Your task to perform on an android device: Open Google Chrome Image 0: 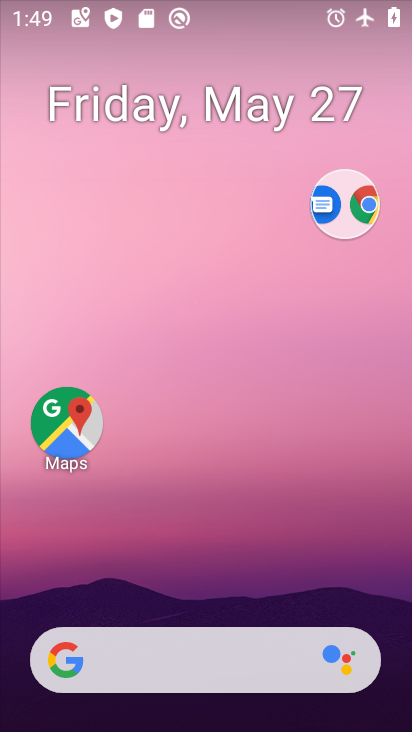
Step 0: drag from (270, 533) to (305, 159)
Your task to perform on an android device: Open Google Chrome Image 1: 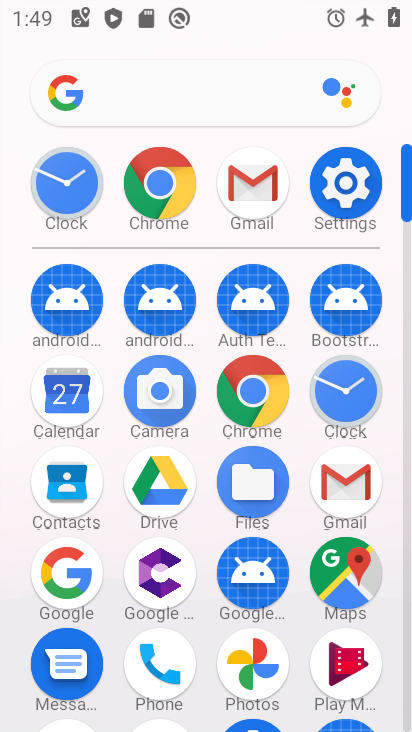
Step 1: drag from (238, 539) to (271, 408)
Your task to perform on an android device: Open Google Chrome Image 2: 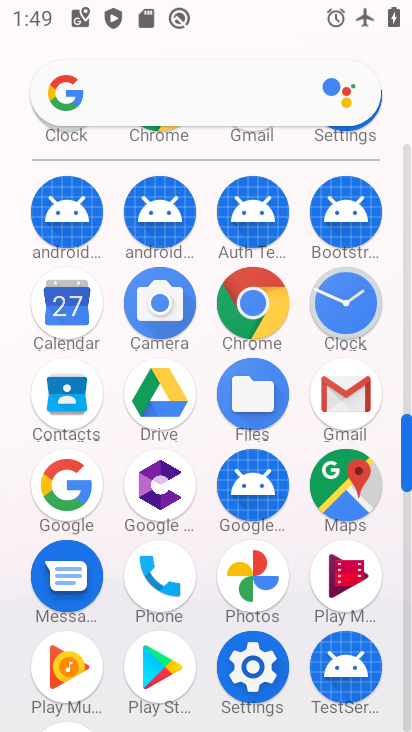
Step 2: click (258, 309)
Your task to perform on an android device: Open Google Chrome Image 3: 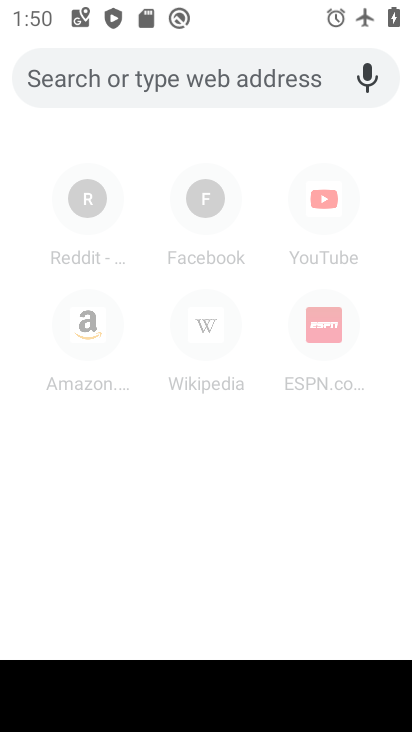
Step 3: task complete